Your task to perform on an android device: Clear the cart on costco.com. Search for "macbook air" on costco.com, select the first entry, and add it to the cart. Image 0: 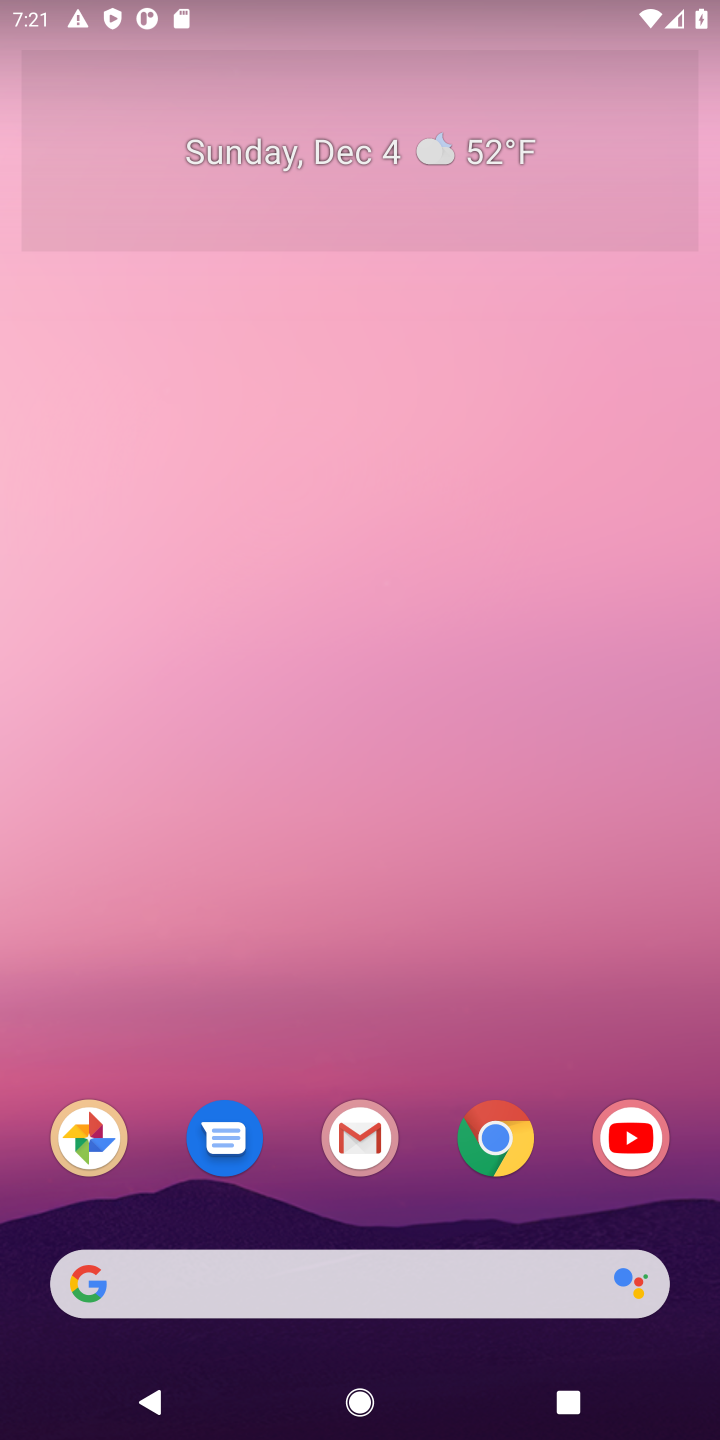
Step 0: click (506, 1132)
Your task to perform on an android device: Clear the cart on costco.com. Search for "macbook air" on costco.com, select the first entry, and add it to the cart. Image 1: 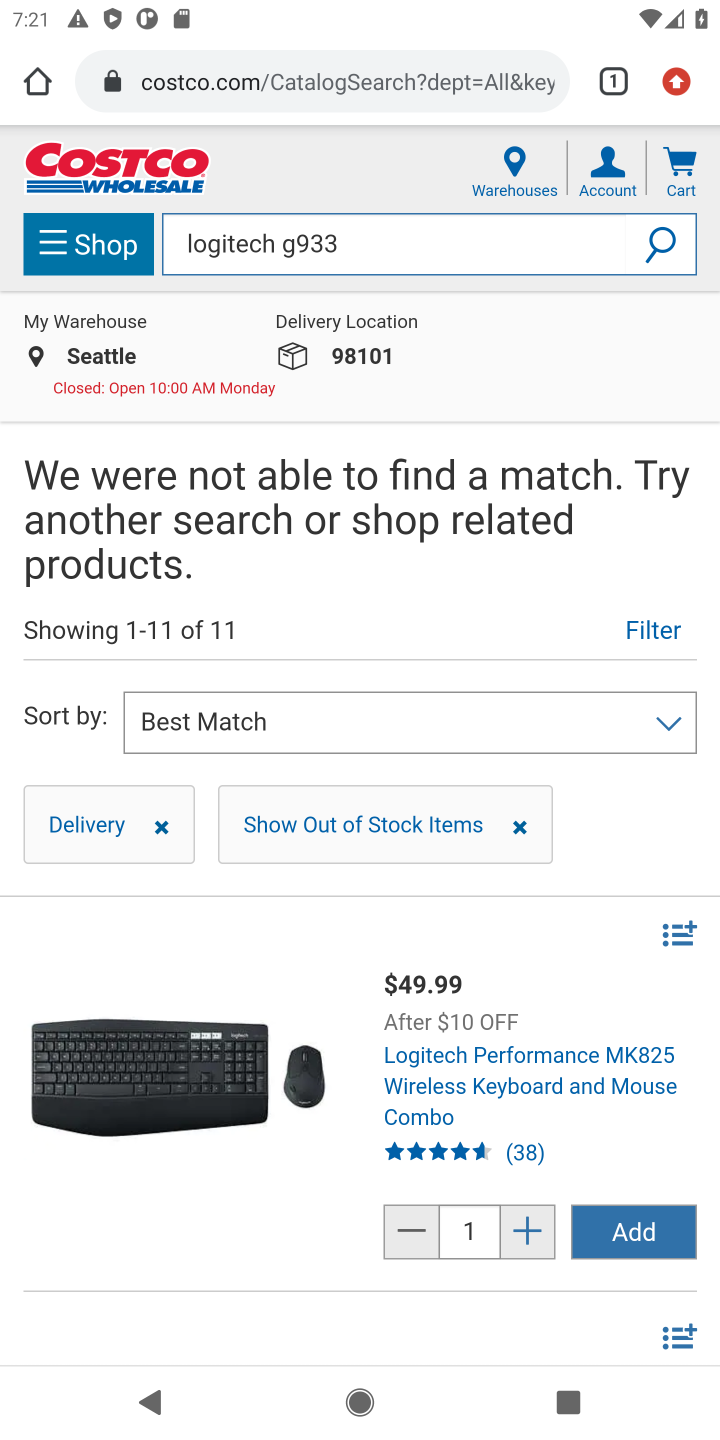
Step 1: click (689, 167)
Your task to perform on an android device: Clear the cart on costco.com. Search for "macbook air" on costco.com, select the first entry, and add it to the cart. Image 2: 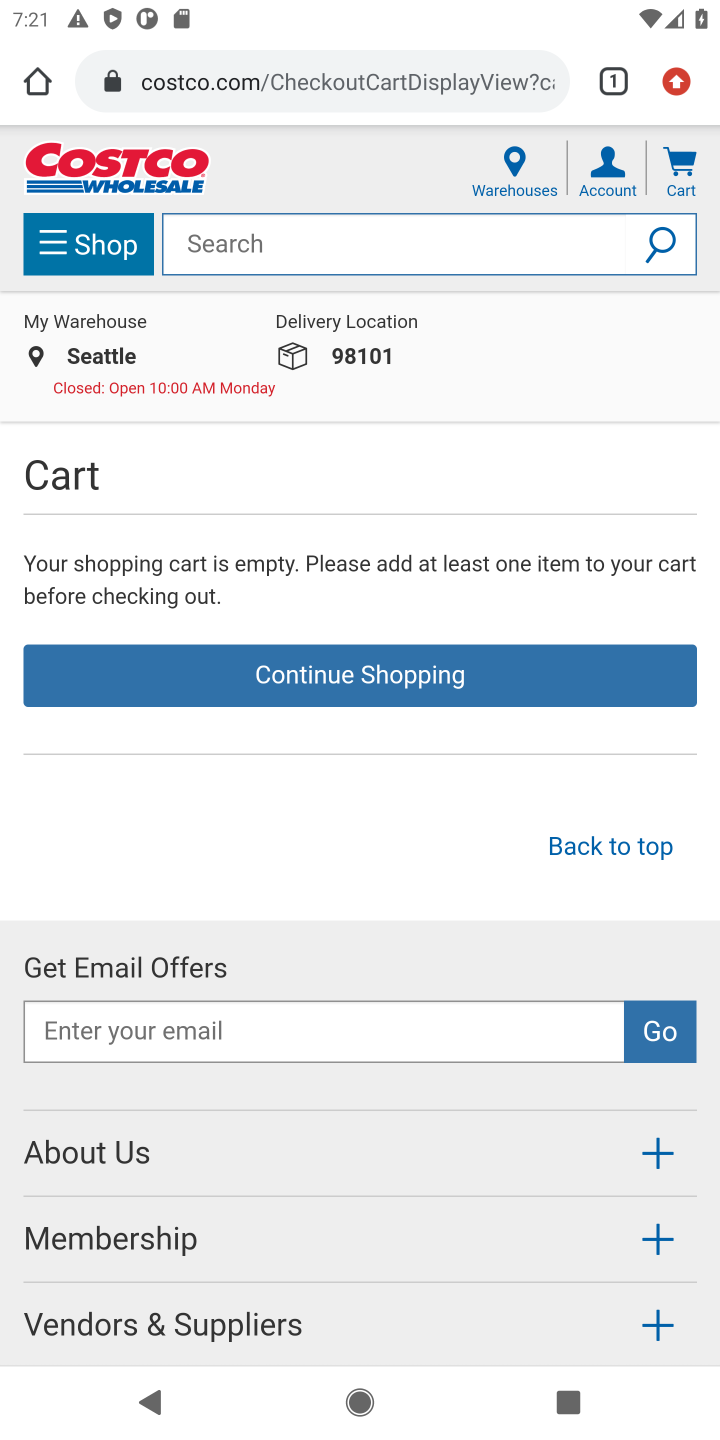
Step 2: click (662, 230)
Your task to perform on an android device: Clear the cart on costco.com. Search for "macbook air" on costco.com, select the first entry, and add it to the cart. Image 3: 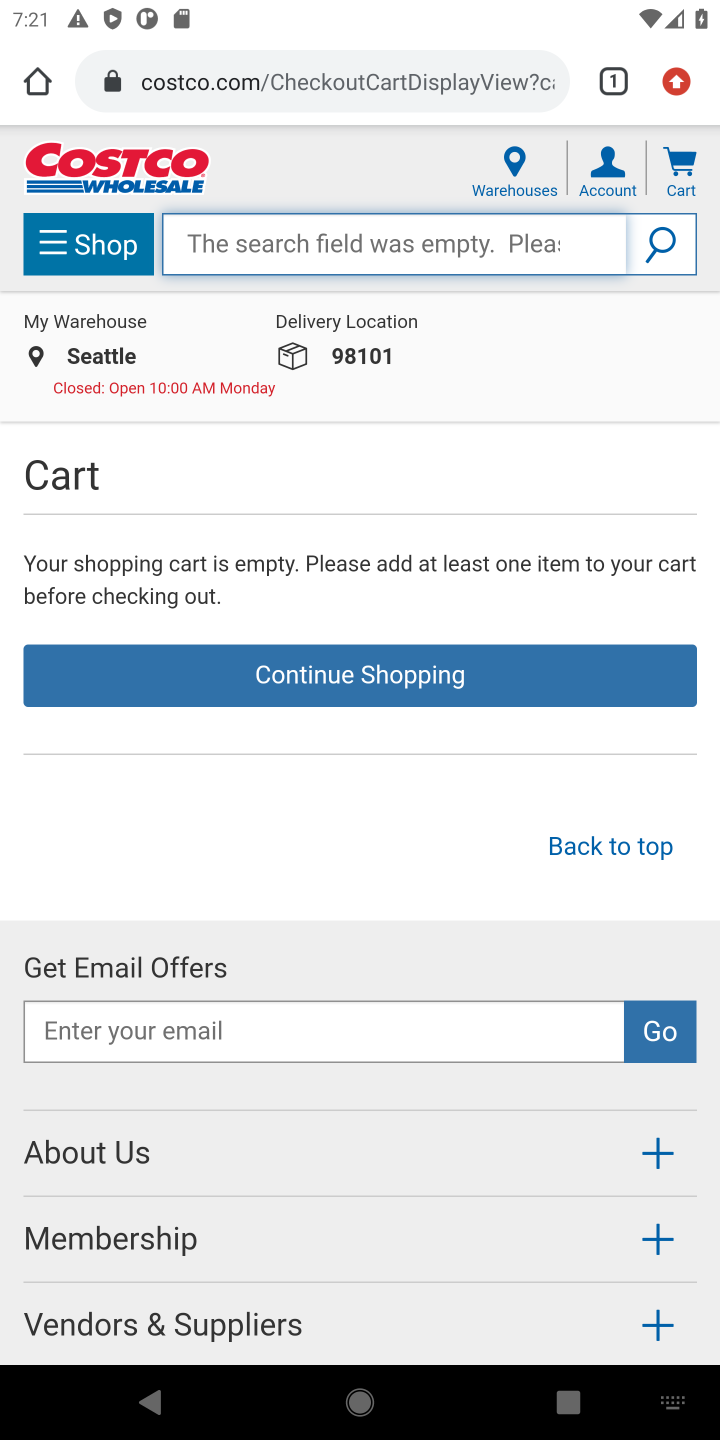
Step 3: type "macbook air"
Your task to perform on an android device: Clear the cart on costco.com. Search for "macbook air" on costco.com, select the first entry, and add it to the cart. Image 4: 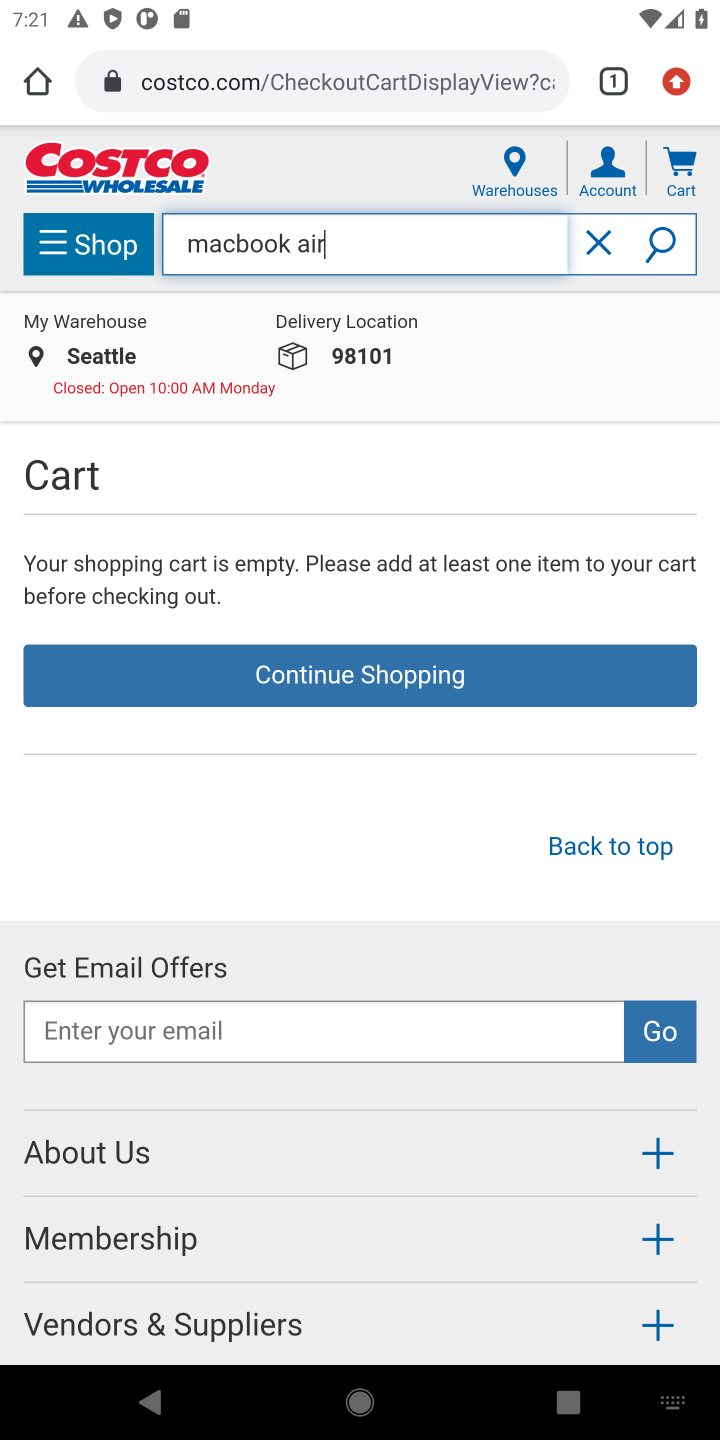
Step 4: press enter
Your task to perform on an android device: Clear the cart on costco.com. Search for "macbook air" on costco.com, select the first entry, and add it to the cart. Image 5: 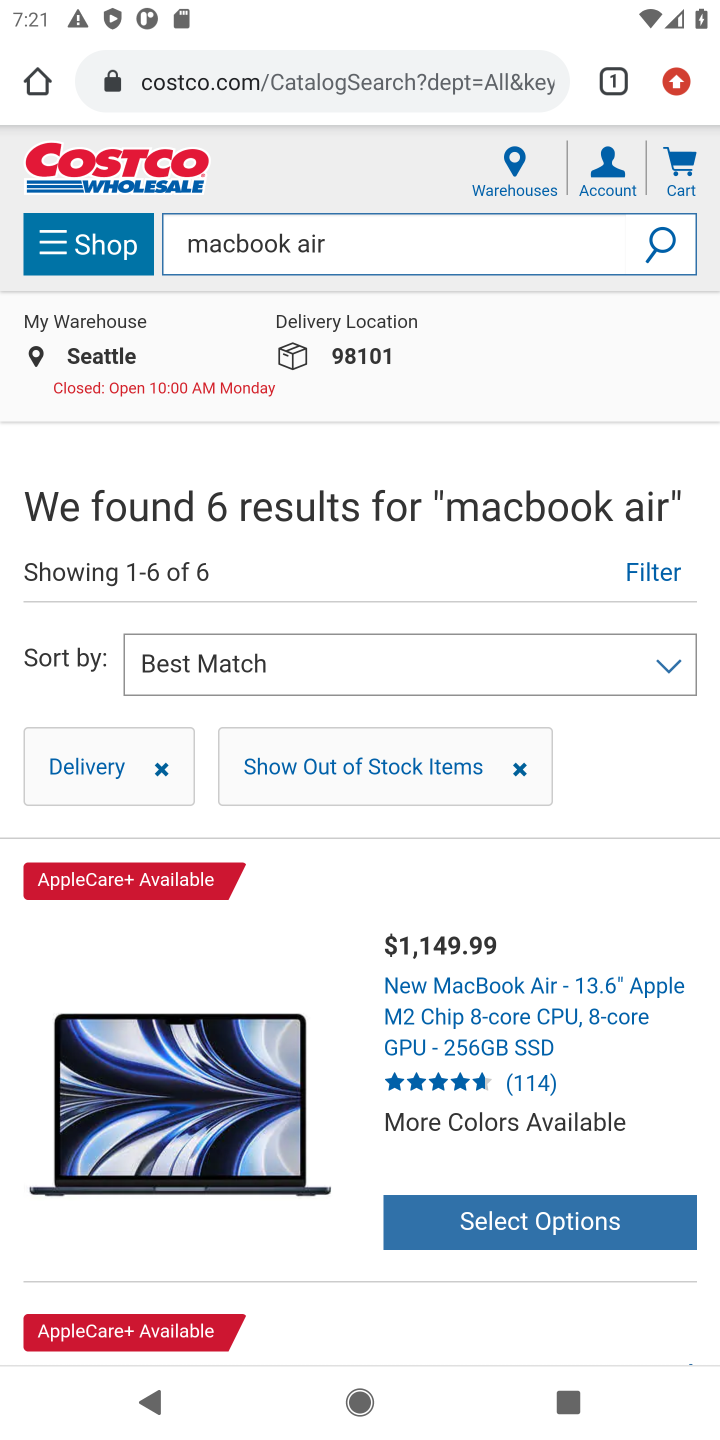
Step 5: click (179, 1114)
Your task to perform on an android device: Clear the cart on costco.com. Search for "macbook air" on costco.com, select the first entry, and add it to the cart. Image 6: 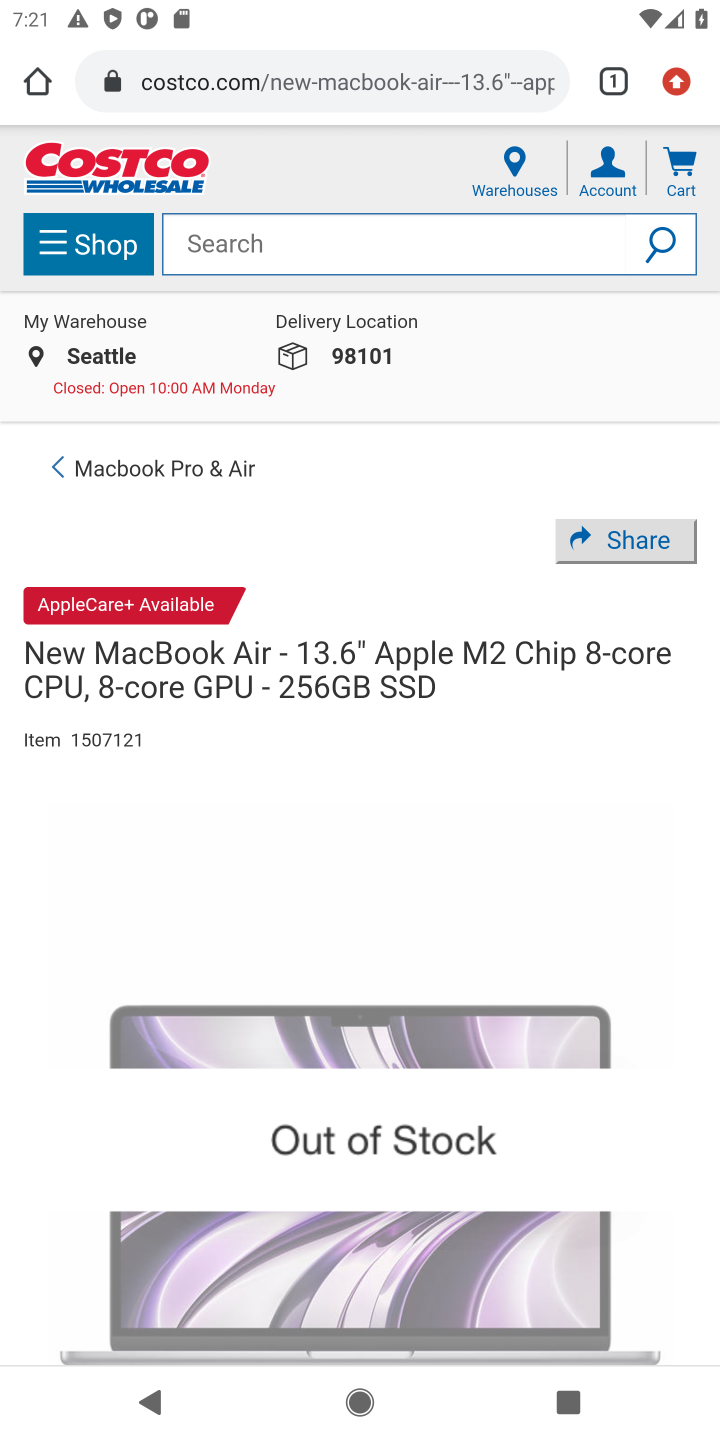
Step 6: press back button
Your task to perform on an android device: Clear the cart on costco.com. Search for "macbook air" on costco.com, select the first entry, and add it to the cart. Image 7: 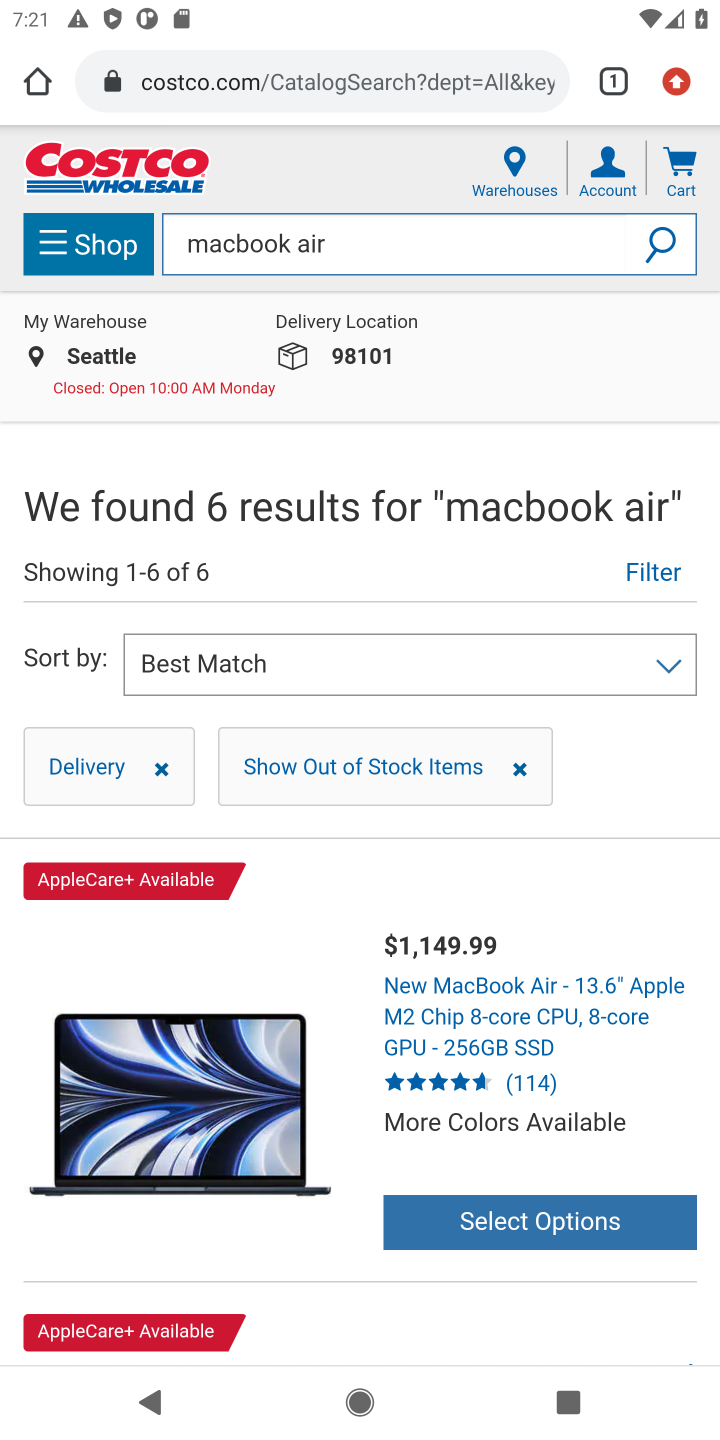
Step 7: drag from (632, 1060) to (664, 474)
Your task to perform on an android device: Clear the cart on costco.com. Search for "macbook air" on costco.com, select the first entry, and add it to the cart. Image 8: 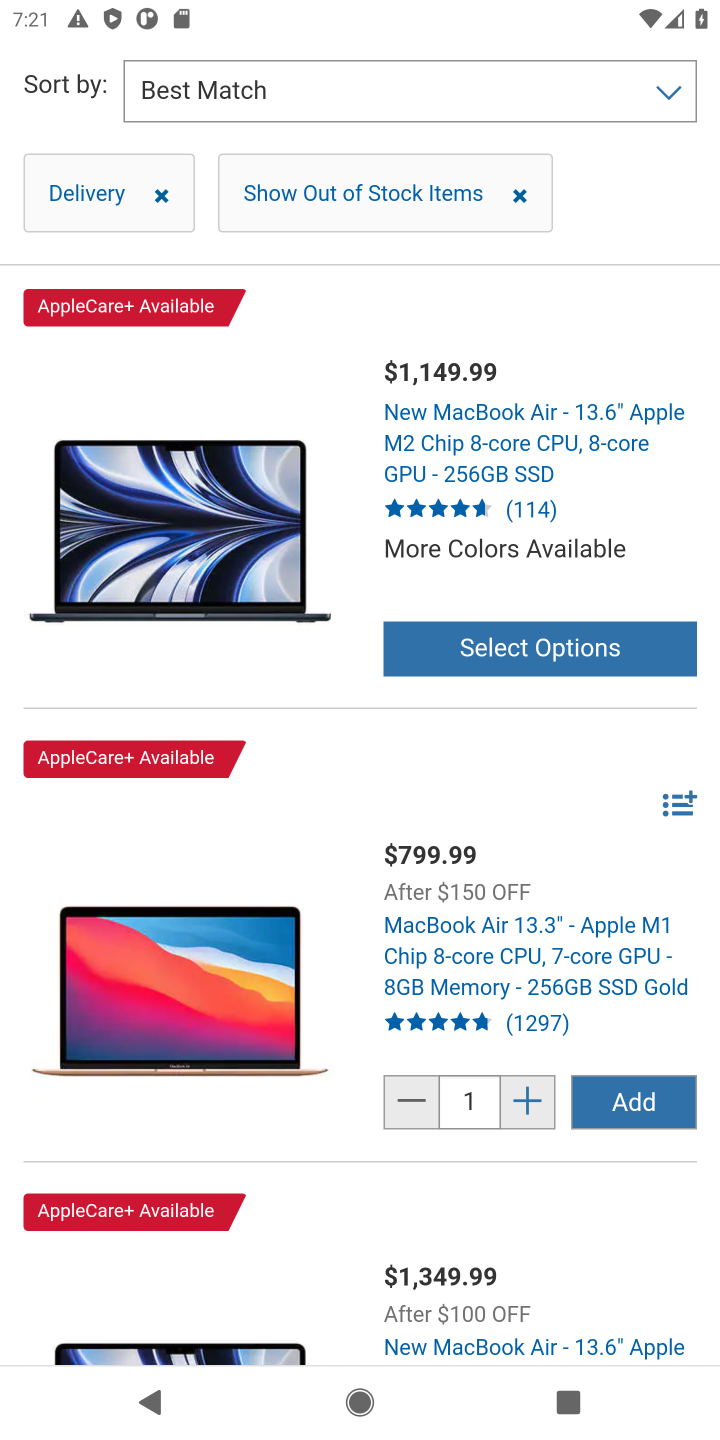
Step 8: click (259, 983)
Your task to perform on an android device: Clear the cart on costco.com. Search for "macbook air" on costco.com, select the first entry, and add it to the cart. Image 9: 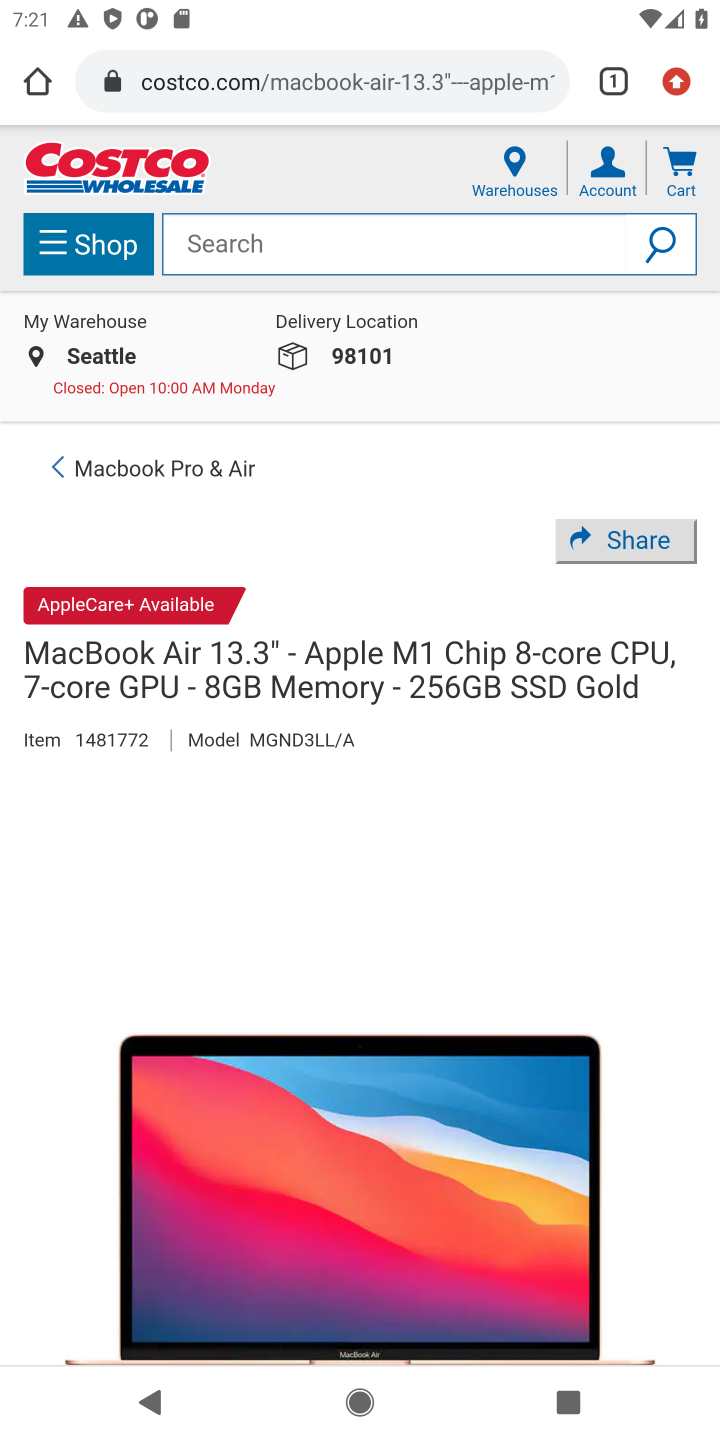
Step 9: drag from (516, 851) to (601, 330)
Your task to perform on an android device: Clear the cart on costco.com. Search for "macbook air" on costco.com, select the first entry, and add it to the cart. Image 10: 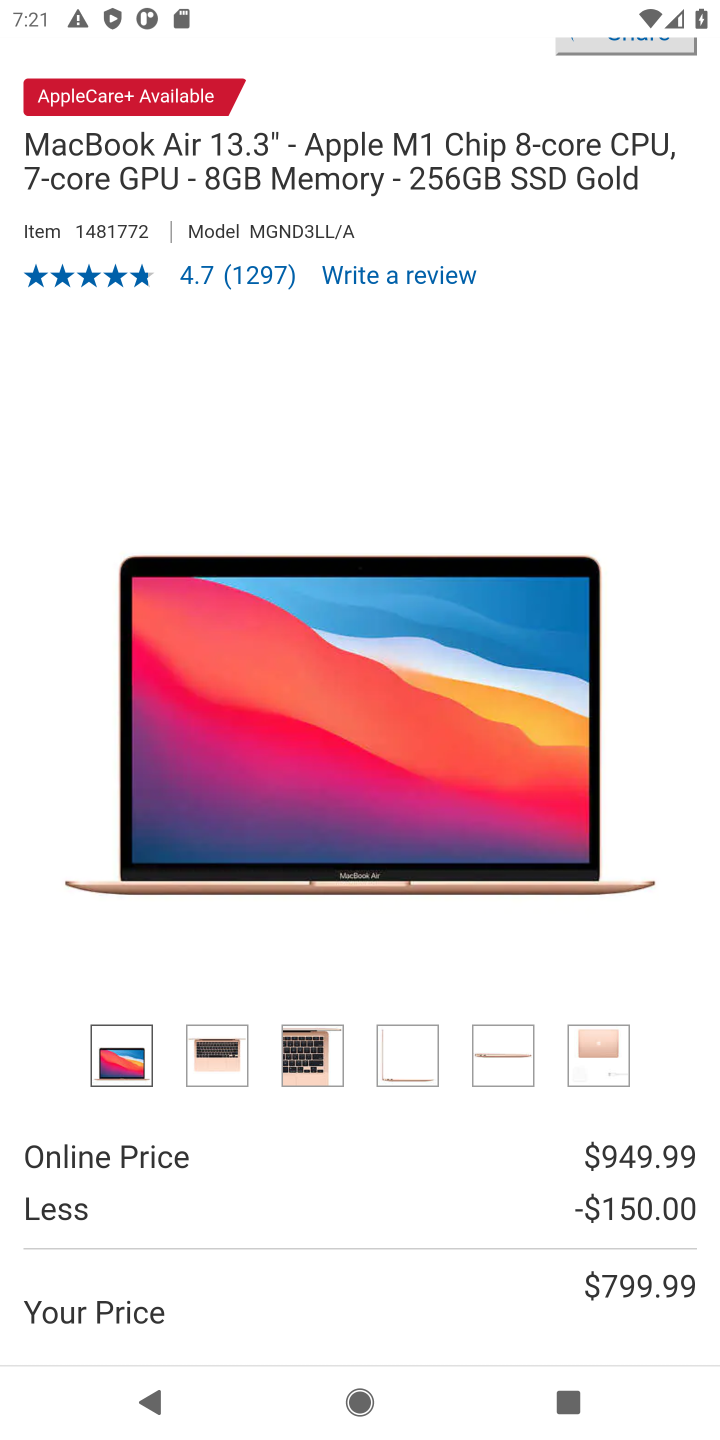
Step 10: drag from (624, 873) to (639, 364)
Your task to perform on an android device: Clear the cart on costco.com. Search for "macbook air" on costco.com, select the first entry, and add it to the cart. Image 11: 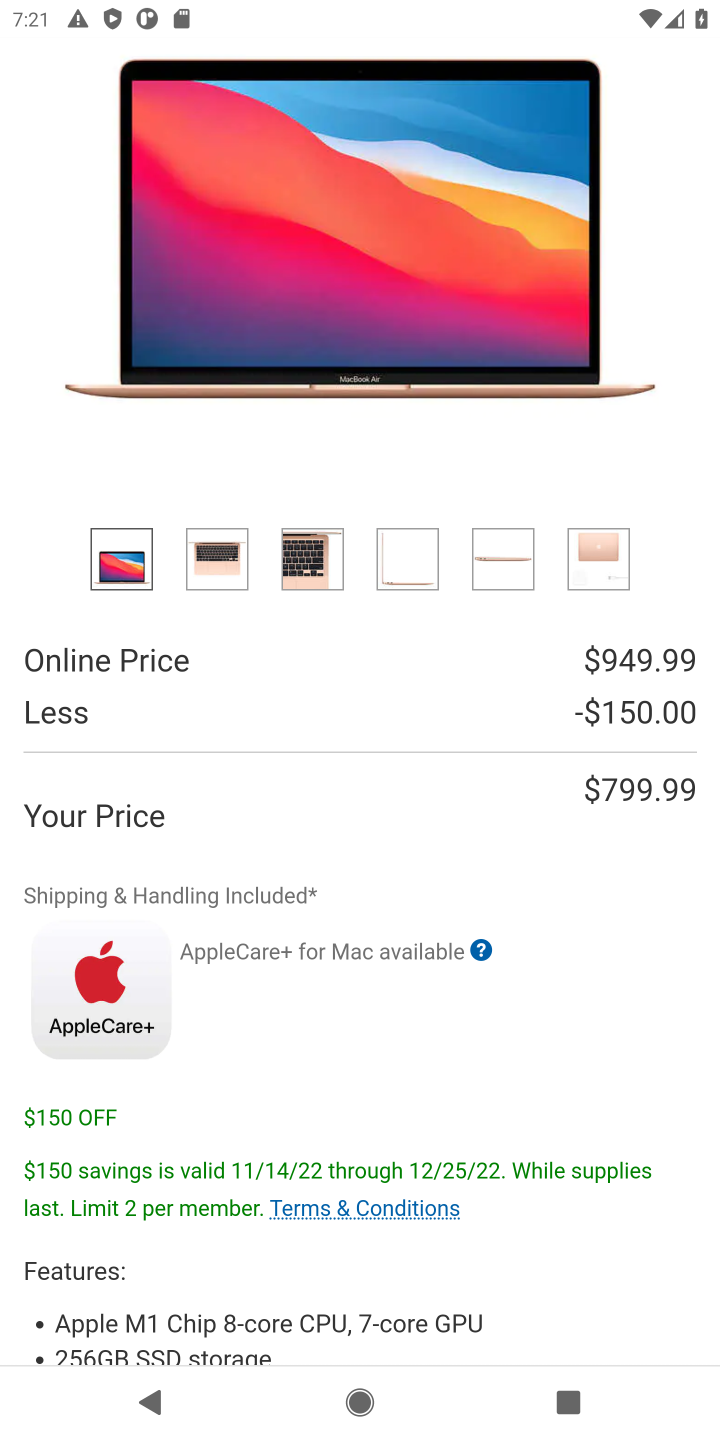
Step 11: drag from (624, 907) to (663, 452)
Your task to perform on an android device: Clear the cart on costco.com. Search for "macbook air" on costco.com, select the first entry, and add it to the cart. Image 12: 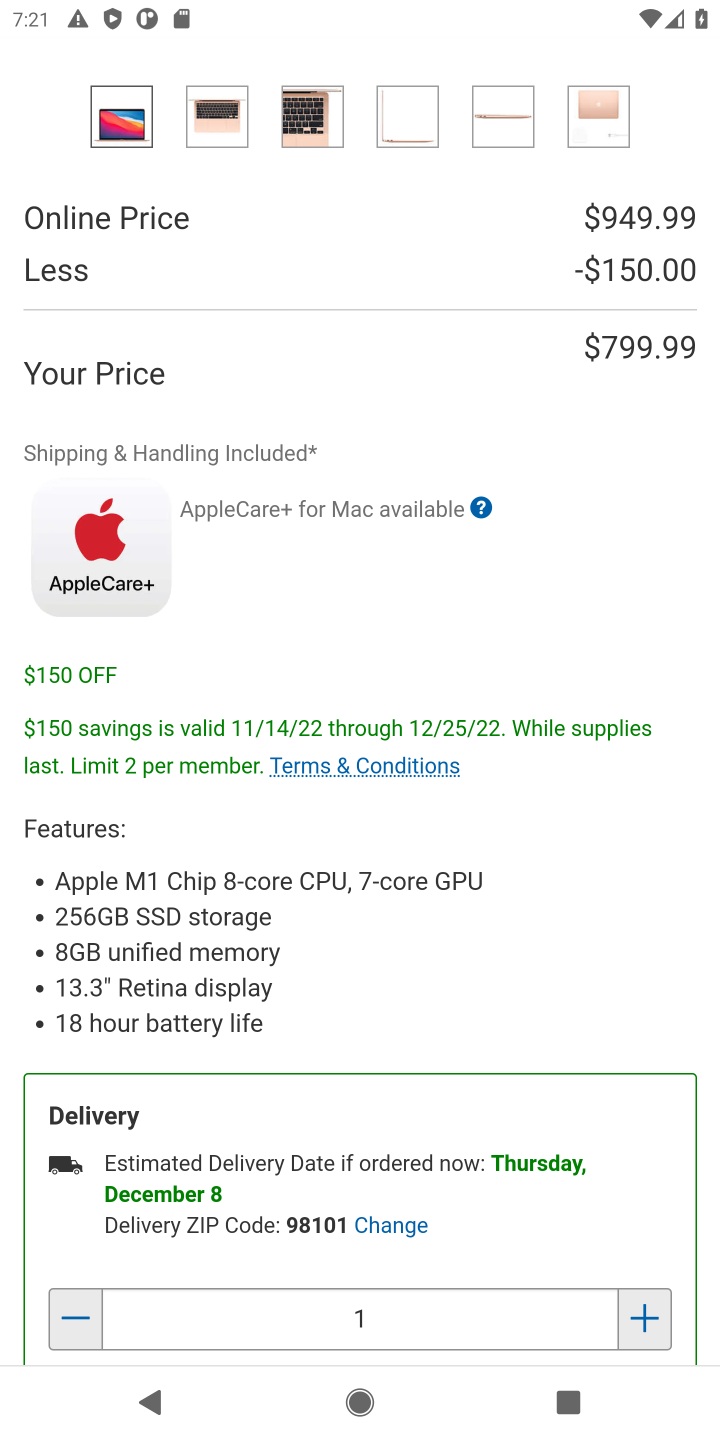
Step 12: drag from (617, 991) to (718, 389)
Your task to perform on an android device: Clear the cart on costco.com. Search for "macbook air" on costco.com, select the first entry, and add it to the cart. Image 13: 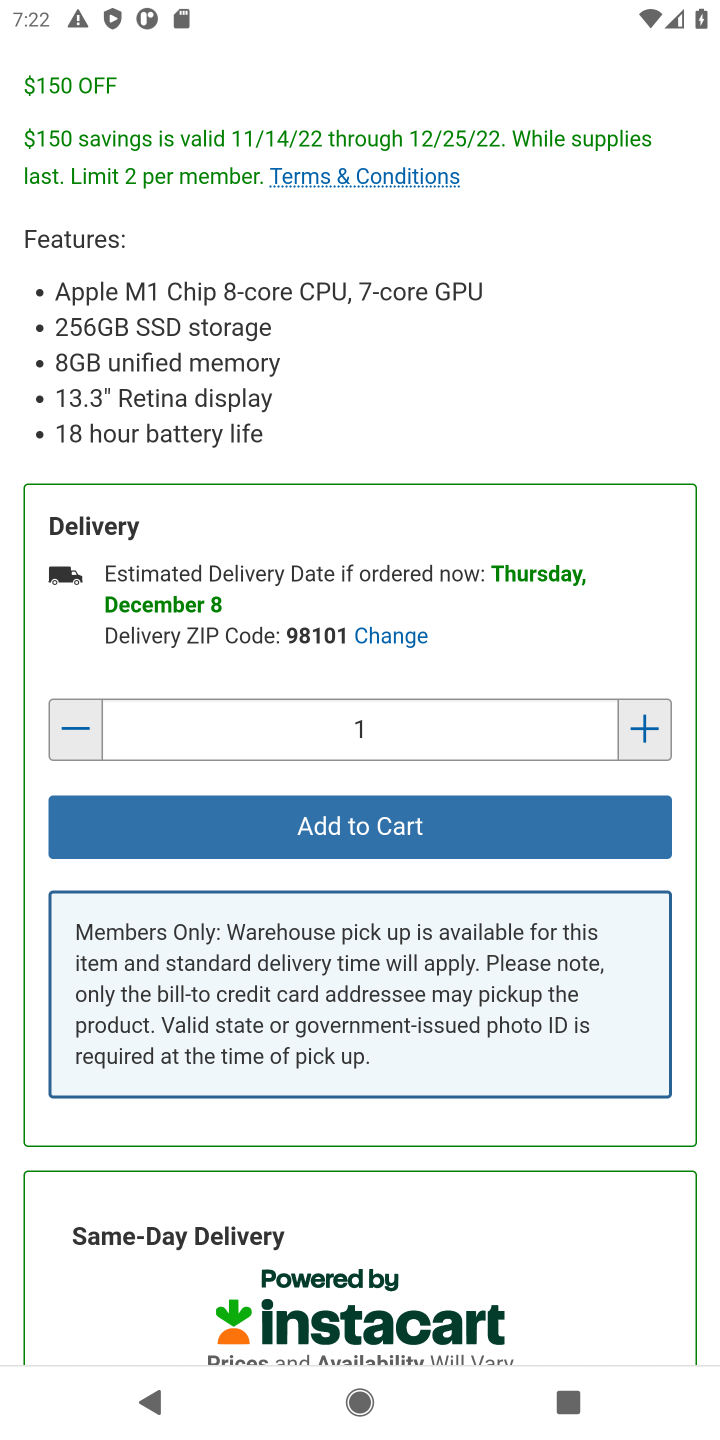
Step 13: click (378, 821)
Your task to perform on an android device: Clear the cart on costco.com. Search for "macbook air" on costco.com, select the first entry, and add it to the cart. Image 14: 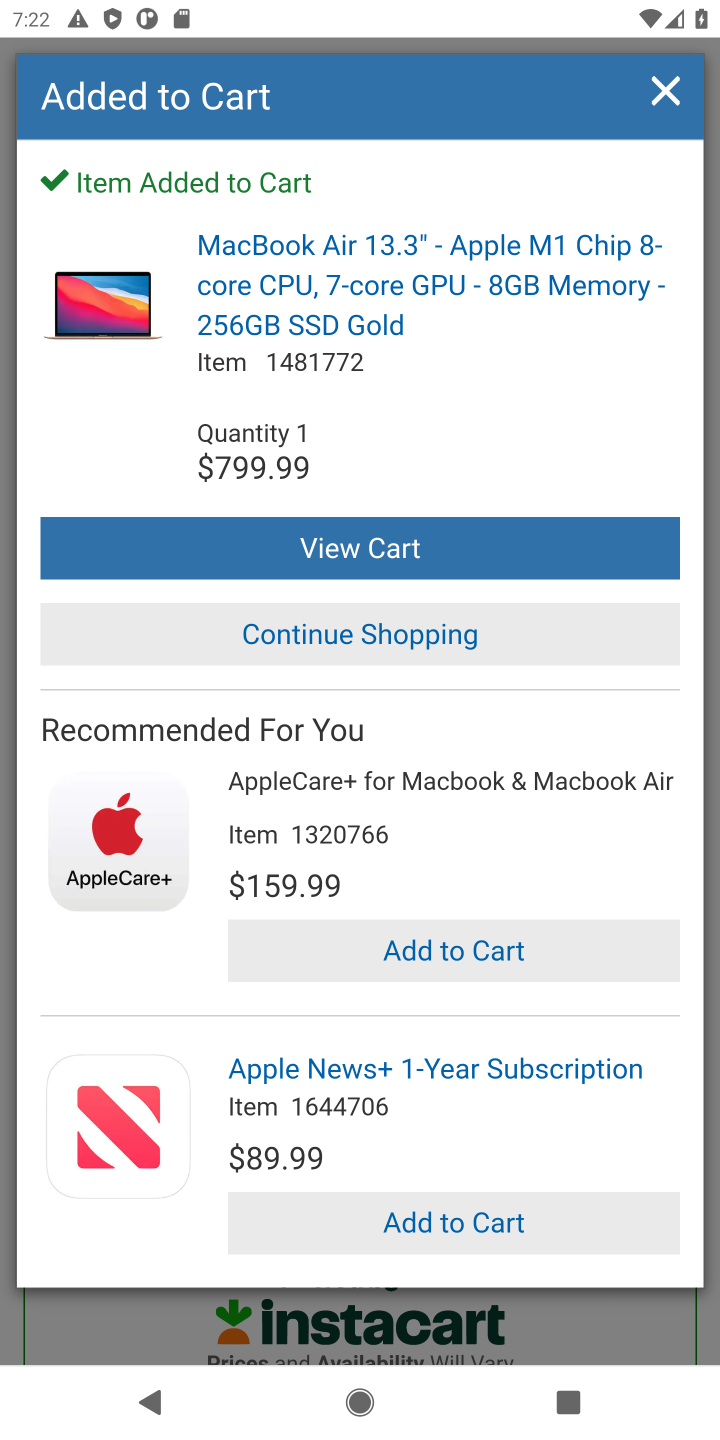
Step 14: click (386, 552)
Your task to perform on an android device: Clear the cart on costco.com. Search for "macbook air" on costco.com, select the first entry, and add it to the cart. Image 15: 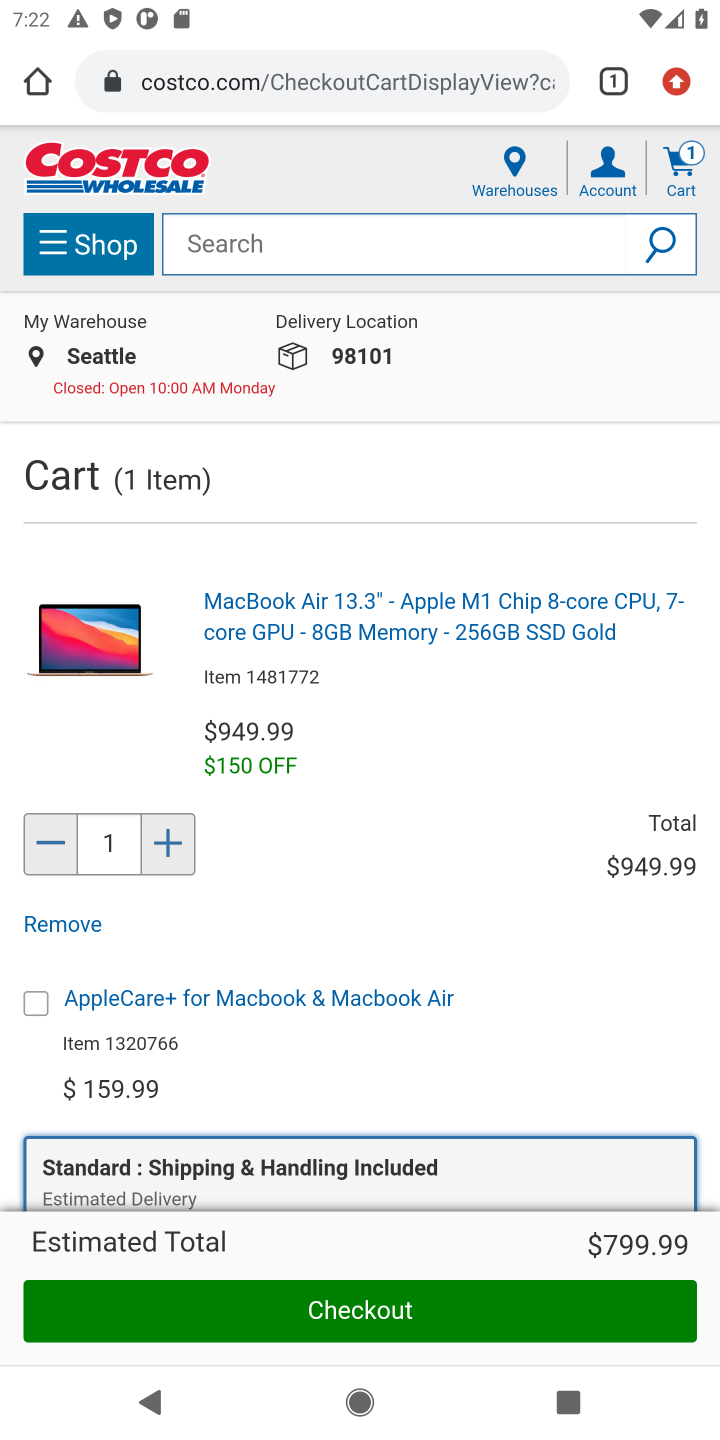
Step 15: task complete